Your task to perform on an android device: Search for seafood restaurants on Google Maps Image 0: 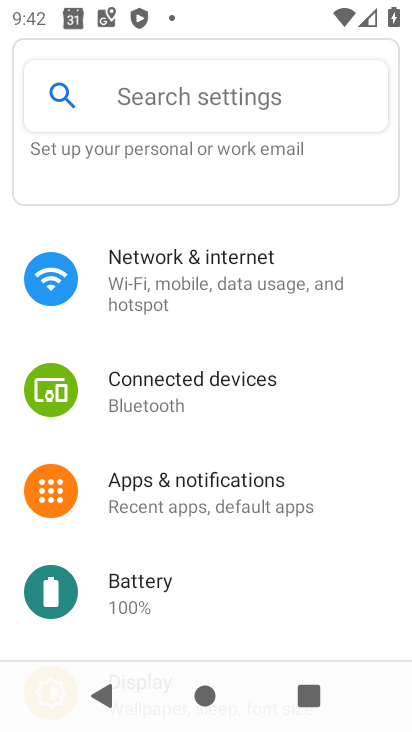
Step 0: press home button
Your task to perform on an android device: Search for seafood restaurants on Google Maps Image 1: 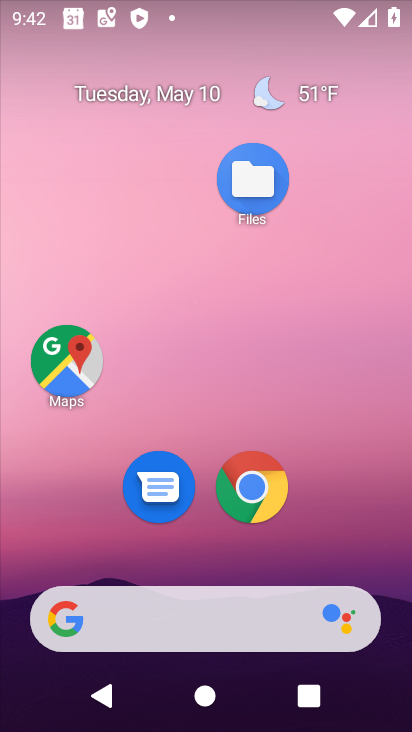
Step 1: click (63, 381)
Your task to perform on an android device: Search for seafood restaurants on Google Maps Image 2: 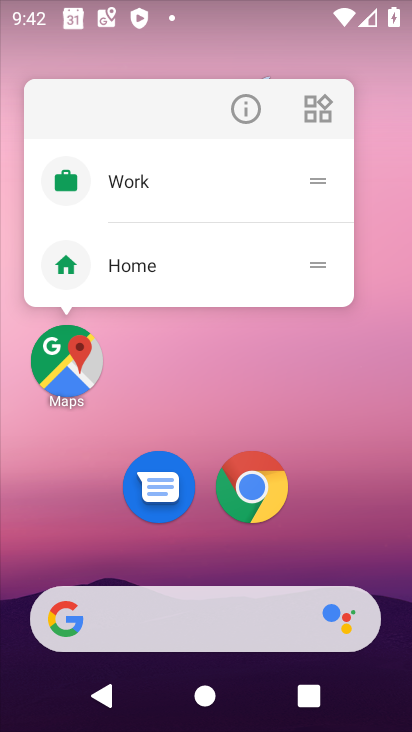
Step 2: click (72, 366)
Your task to perform on an android device: Search for seafood restaurants on Google Maps Image 3: 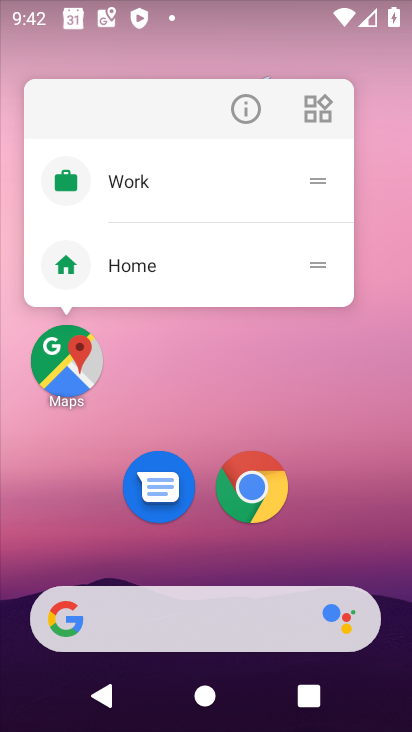
Step 3: click (62, 359)
Your task to perform on an android device: Search for seafood restaurants on Google Maps Image 4: 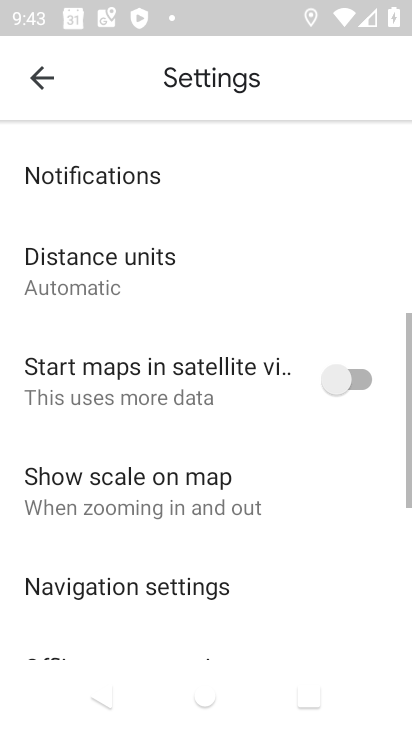
Step 4: press back button
Your task to perform on an android device: Search for seafood restaurants on Google Maps Image 5: 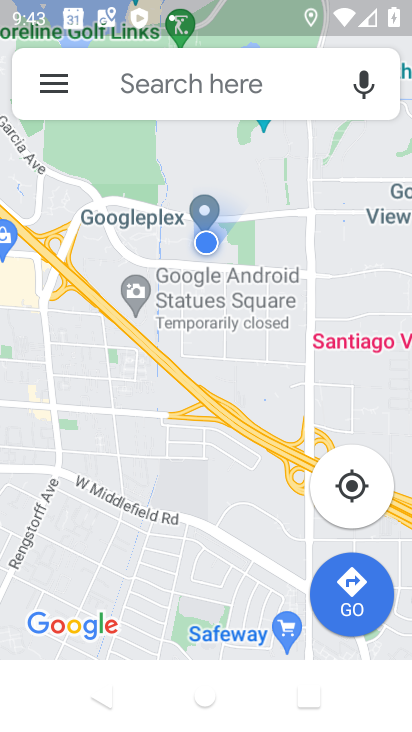
Step 5: click (153, 90)
Your task to perform on an android device: Search for seafood restaurants on Google Maps Image 6: 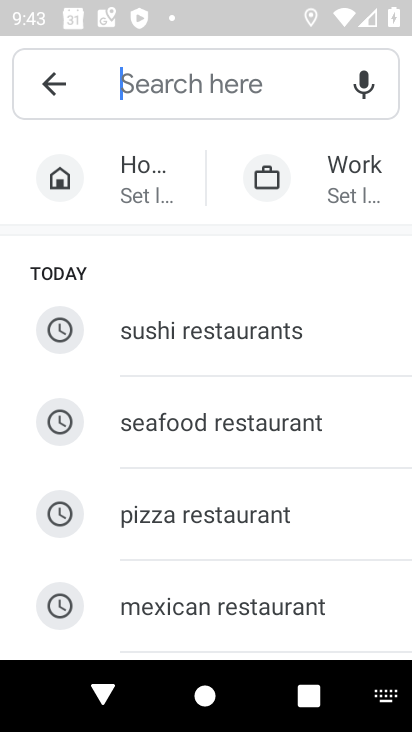
Step 6: click (205, 425)
Your task to perform on an android device: Search for seafood restaurants on Google Maps Image 7: 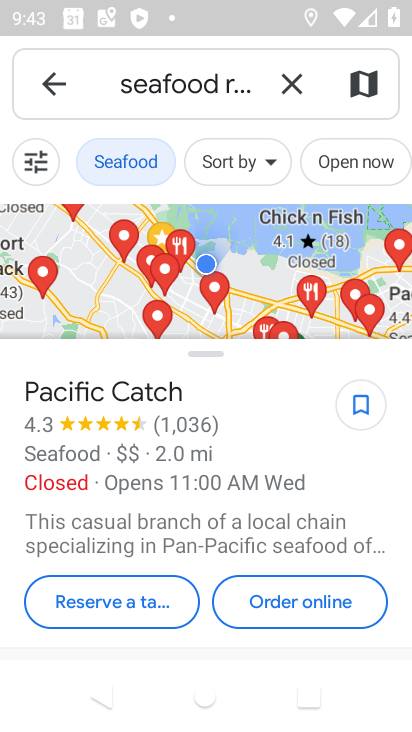
Step 7: task complete